Your task to perform on an android device: empty trash in the gmail app Image 0: 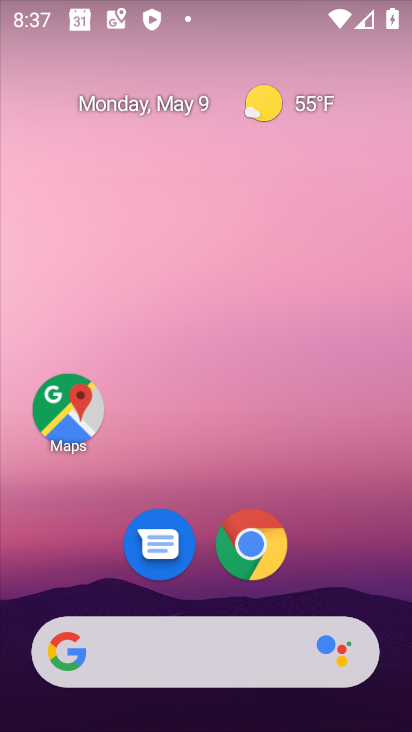
Step 0: drag from (208, 552) to (228, 133)
Your task to perform on an android device: empty trash in the gmail app Image 1: 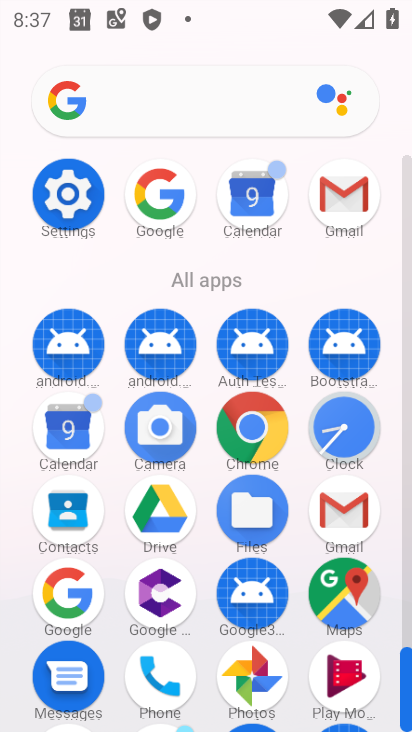
Step 1: click (332, 216)
Your task to perform on an android device: empty trash in the gmail app Image 2: 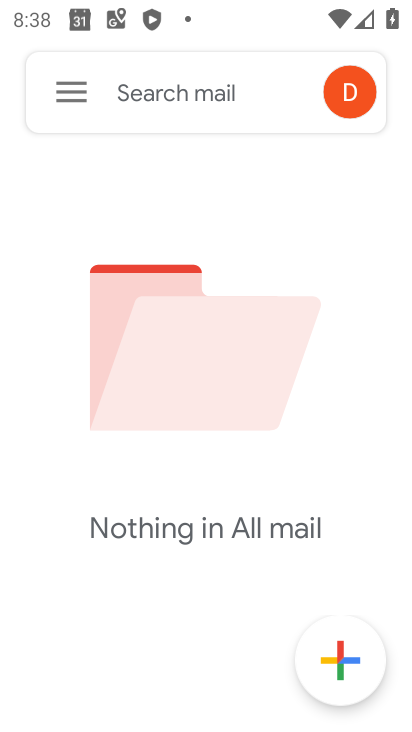
Step 2: click (81, 98)
Your task to perform on an android device: empty trash in the gmail app Image 3: 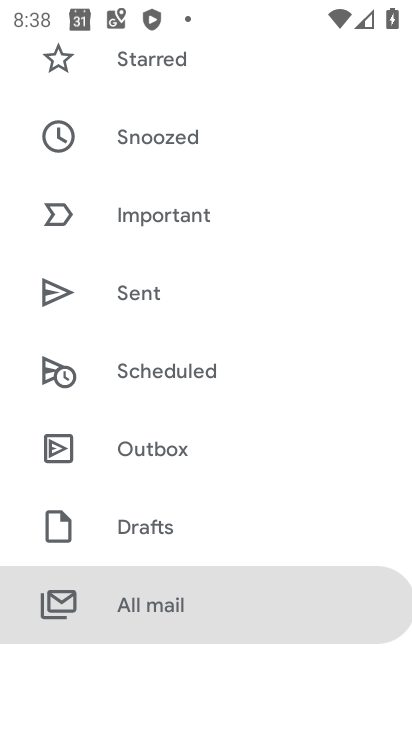
Step 3: drag from (219, 546) to (250, 167)
Your task to perform on an android device: empty trash in the gmail app Image 4: 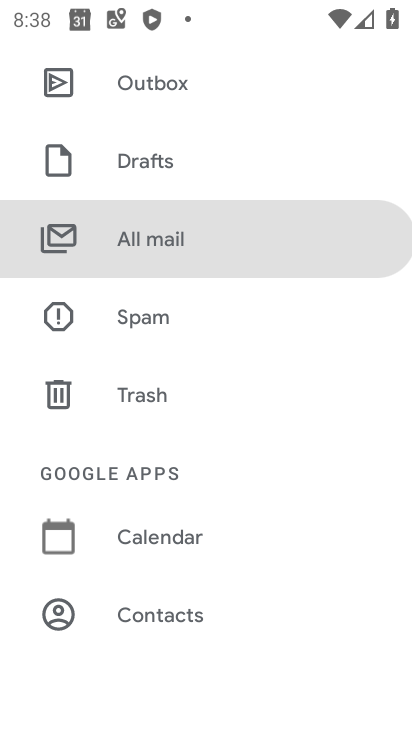
Step 4: click (147, 407)
Your task to perform on an android device: empty trash in the gmail app Image 5: 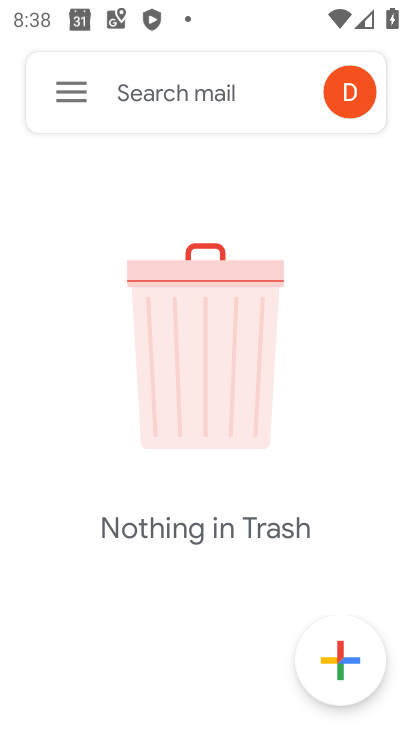
Step 5: task complete